Your task to perform on an android device: Open calendar and show me the second week of next month Image 0: 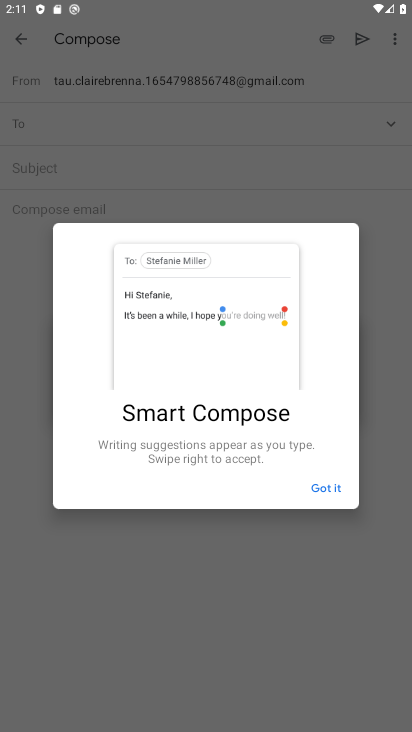
Step 0: press home button
Your task to perform on an android device: Open calendar and show me the second week of next month Image 1: 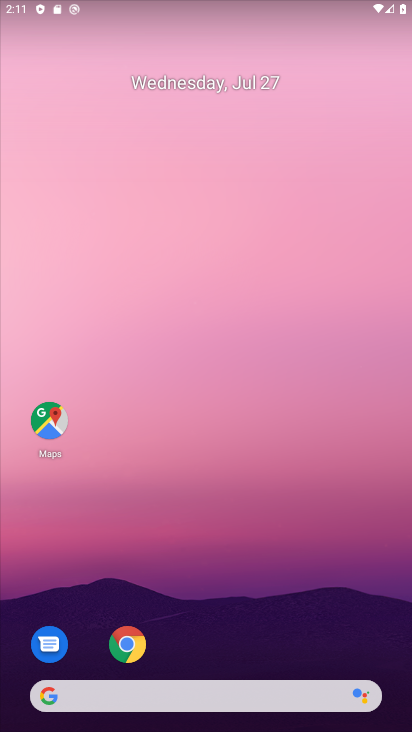
Step 1: drag from (221, 516) to (409, 41)
Your task to perform on an android device: Open calendar and show me the second week of next month Image 2: 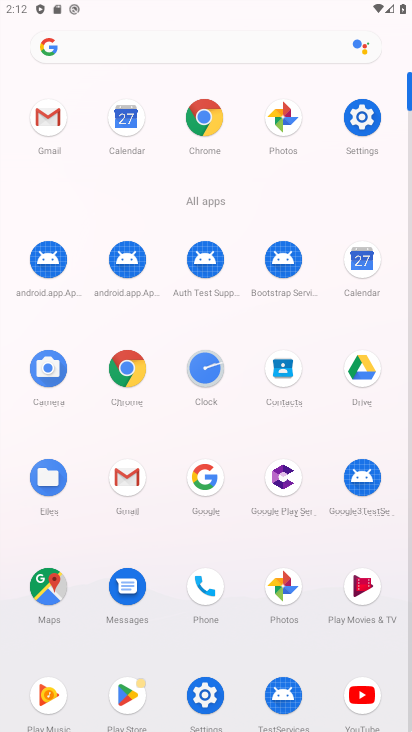
Step 2: click (369, 255)
Your task to perform on an android device: Open calendar and show me the second week of next month Image 3: 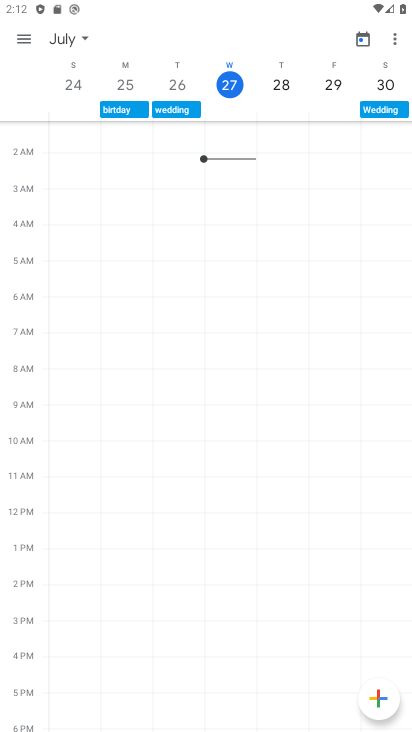
Step 3: task complete